Your task to perform on an android device: Check the news Image 0: 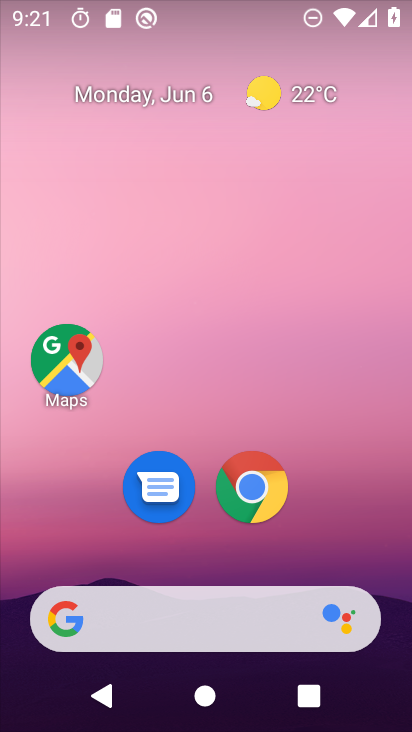
Step 0: click (252, 84)
Your task to perform on an android device: Check the news Image 1: 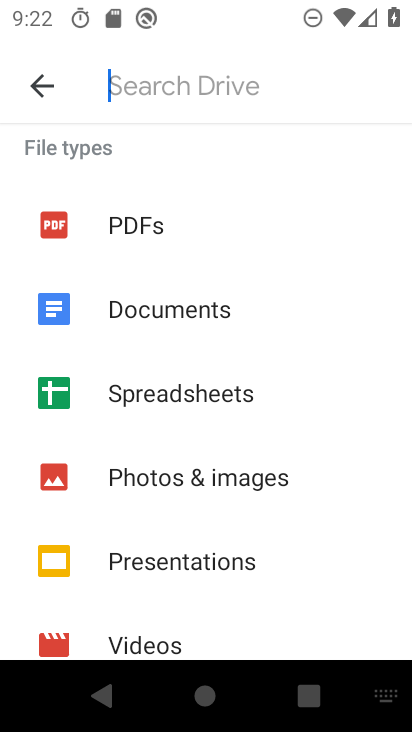
Step 1: press home button
Your task to perform on an android device: Check the news Image 2: 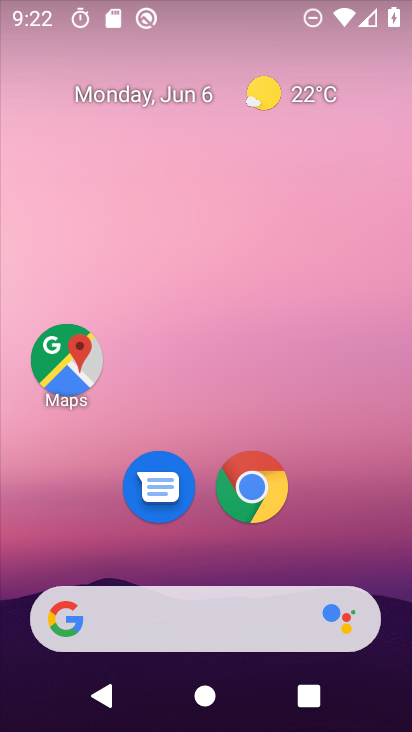
Step 2: drag from (391, 640) to (349, 3)
Your task to perform on an android device: Check the news Image 3: 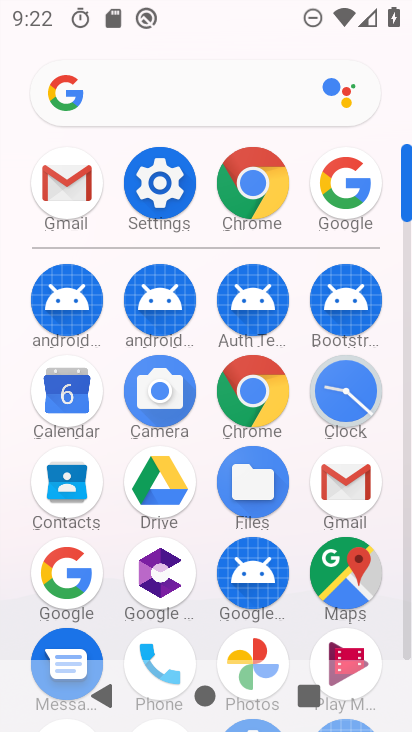
Step 3: click (72, 586)
Your task to perform on an android device: Check the news Image 4: 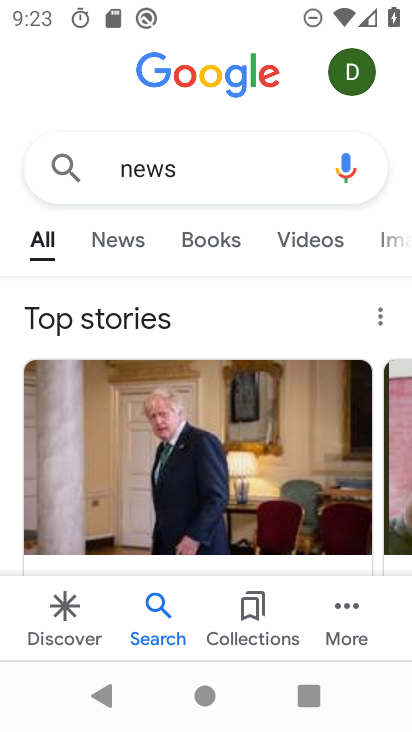
Step 4: task complete